Your task to perform on an android device: Go to Yahoo.com Image 0: 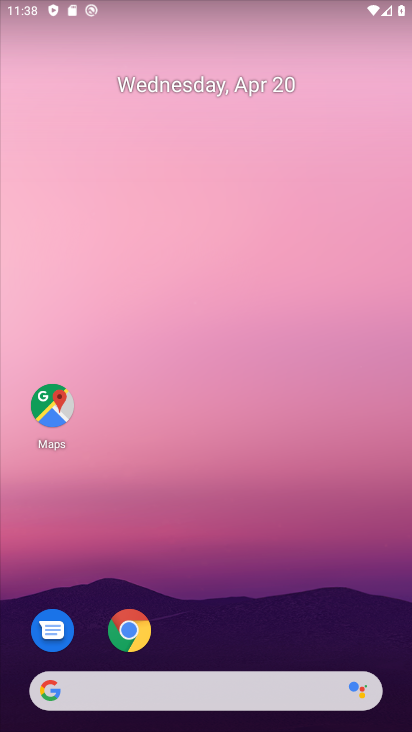
Step 0: click (138, 635)
Your task to perform on an android device: Go to Yahoo.com Image 1: 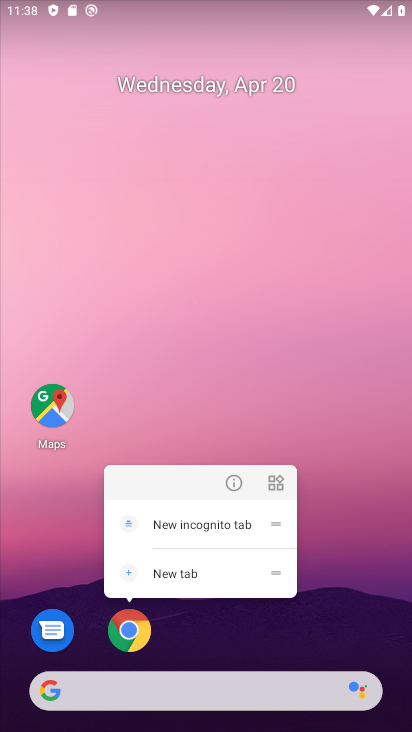
Step 1: click (136, 633)
Your task to perform on an android device: Go to Yahoo.com Image 2: 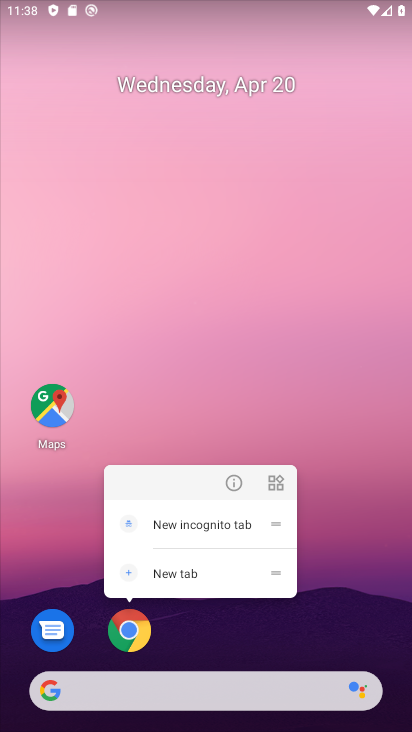
Step 2: click (136, 633)
Your task to perform on an android device: Go to Yahoo.com Image 3: 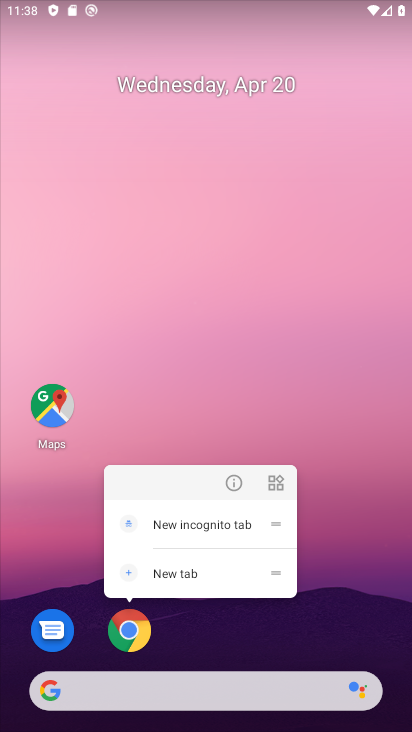
Step 3: click (135, 641)
Your task to perform on an android device: Go to Yahoo.com Image 4: 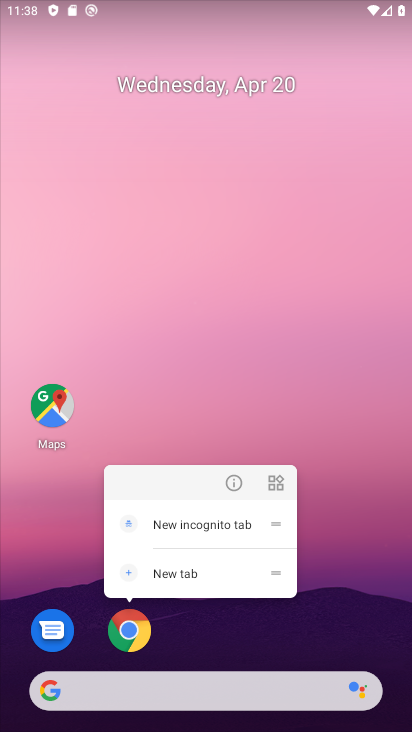
Step 4: click (131, 651)
Your task to perform on an android device: Go to Yahoo.com Image 5: 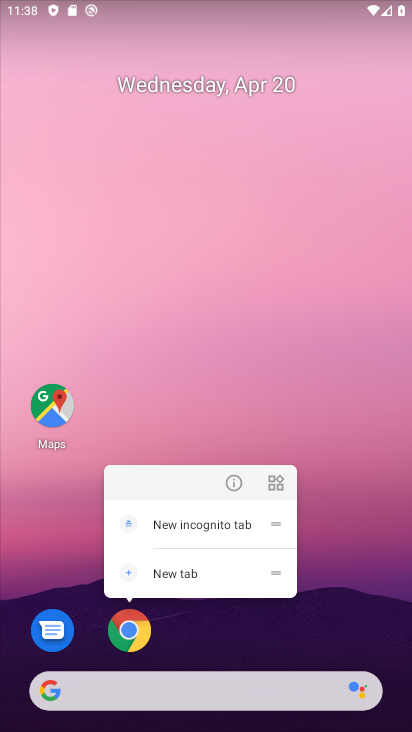
Step 5: click (131, 641)
Your task to perform on an android device: Go to Yahoo.com Image 6: 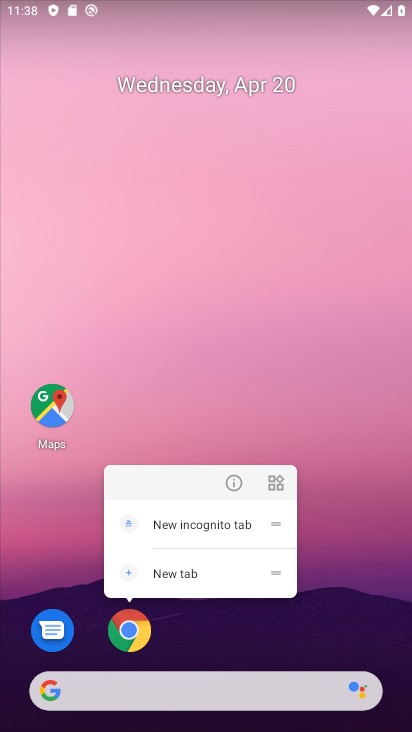
Step 6: click (130, 636)
Your task to perform on an android device: Go to Yahoo.com Image 7: 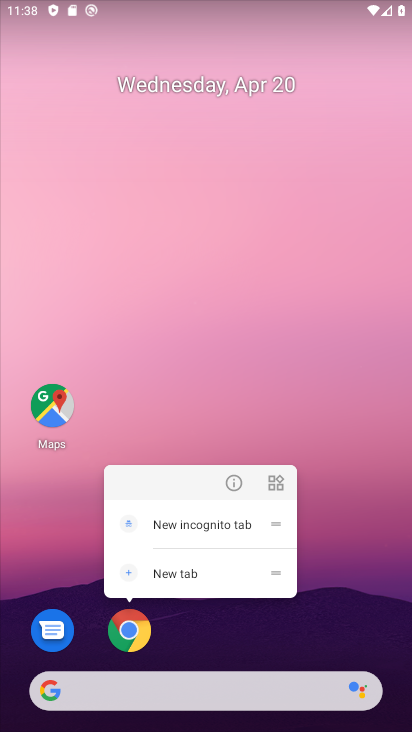
Step 7: click (123, 624)
Your task to perform on an android device: Go to Yahoo.com Image 8: 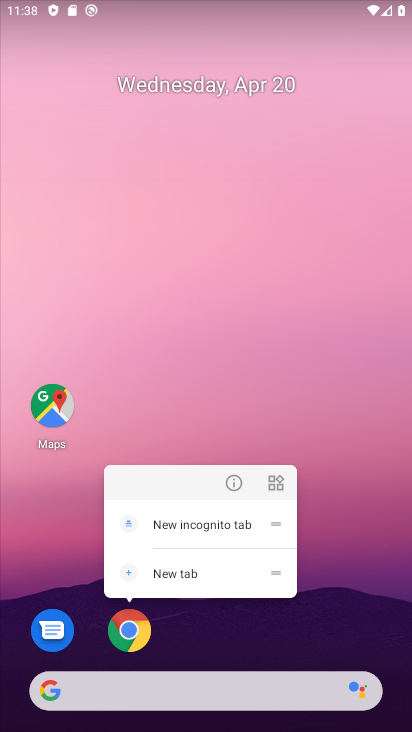
Step 8: click (122, 626)
Your task to perform on an android device: Go to Yahoo.com Image 9: 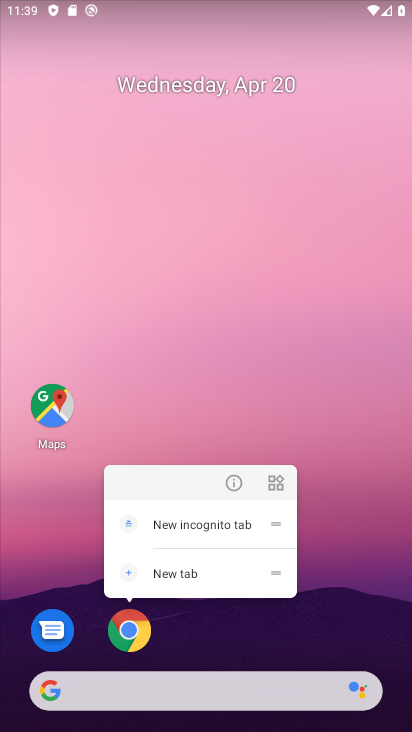
Step 9: click (122, 627)
Your task to perform on an android device: Go to Yahoo.com Image 10: 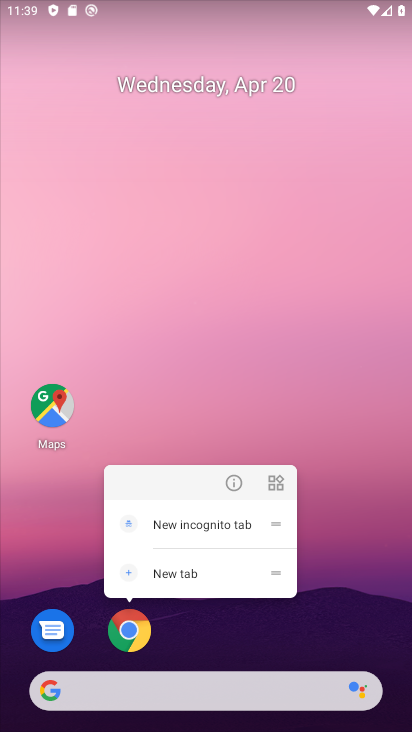
Step 10: click (122, 642)
Your task to perform on an android device: Go to Yahoo.com Image 11: 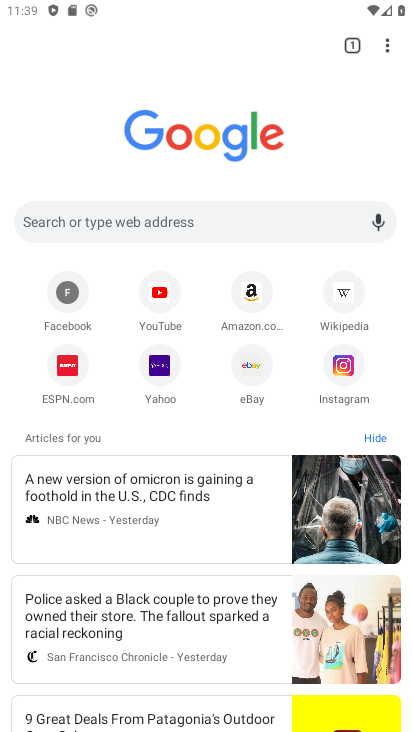
Step 11: click (161, 367)
Your task to perform on an android device: Go to Yahoo.com Image 12: 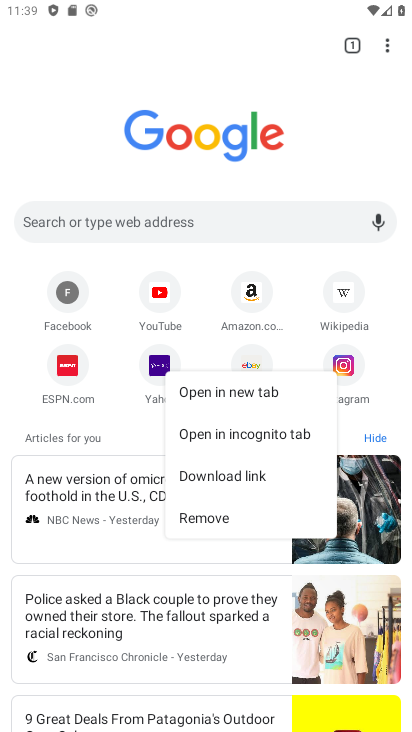
Step 12: click (161, 374)
Your task to perform on an android device: Go to Yahoo.com Image 13: 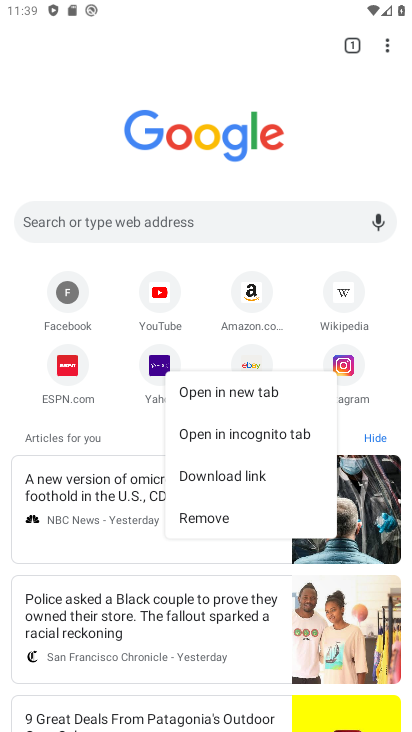
Step 13: click (155, 360)
Your task to perform on an android device: Go to Yahoo.com Image 14: 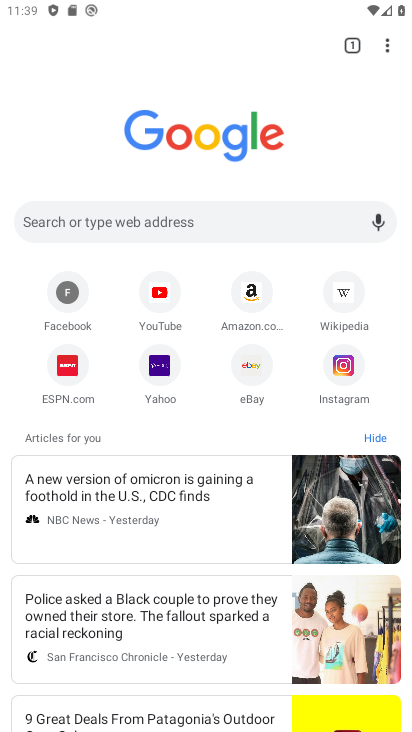
Step 14: click (154, 371)
Your task to perform on an android device: Go to Yahoo.com Image 15: 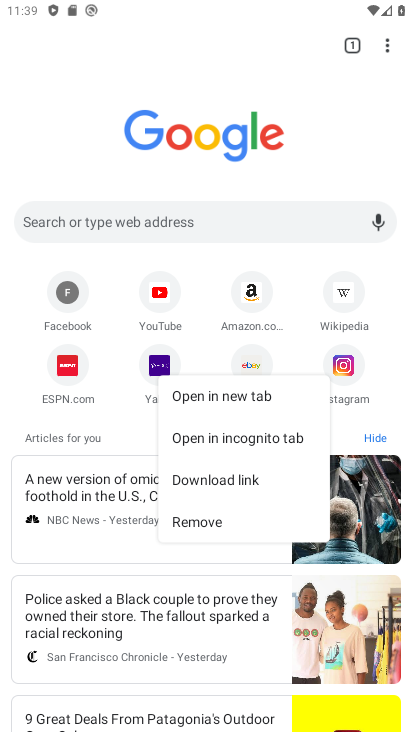
Step 15: click (158, 369)
Your task to perform on an android device: Go to Yahoo.com Image 16: 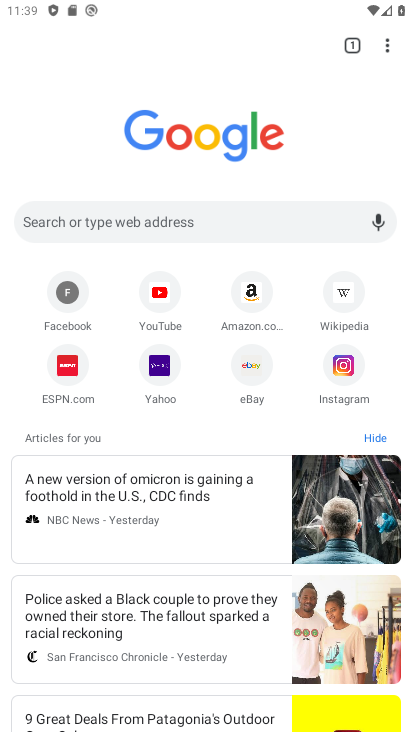
Step 16: click (159, 387)
Your task to perform on an android device: Go to Yahoo.com Image 17: 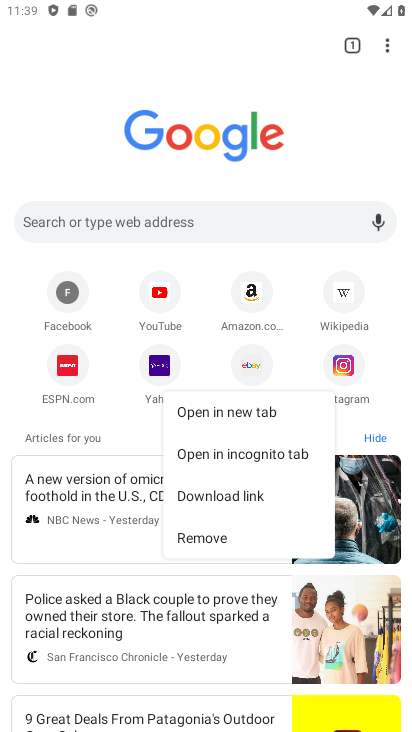
Step 17: click (154, 371)
Your task to perform on an android device: Go to Yahoo.com Image 18: 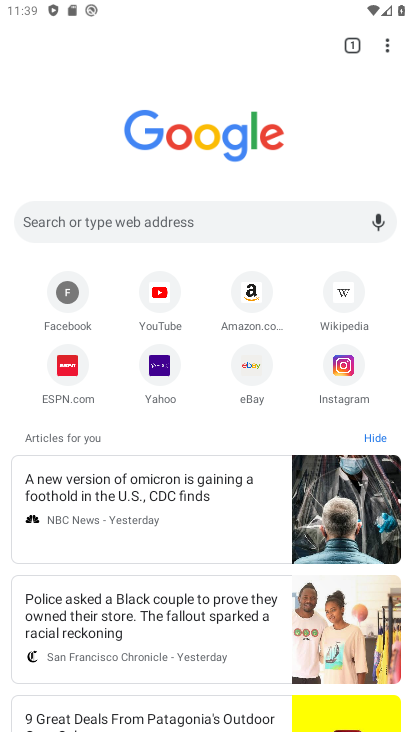
Step 18: click (182, 380)
Your task to perform on an android device: Go to Yahoo.com Image 19: 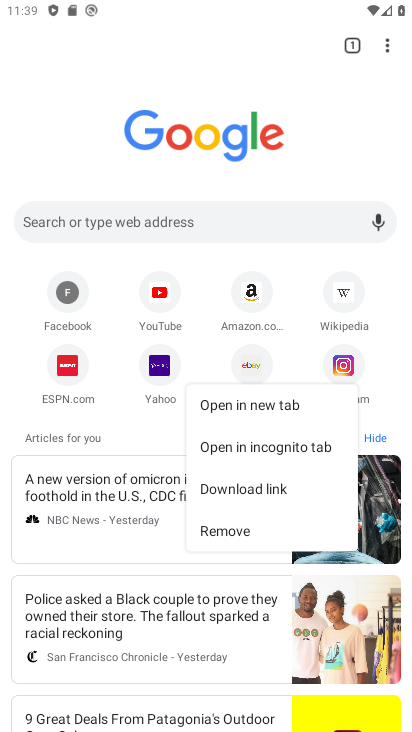
Step 19: click (164, 367)
Your task to perform on an android device: Go to Yahoo.com Image 20: 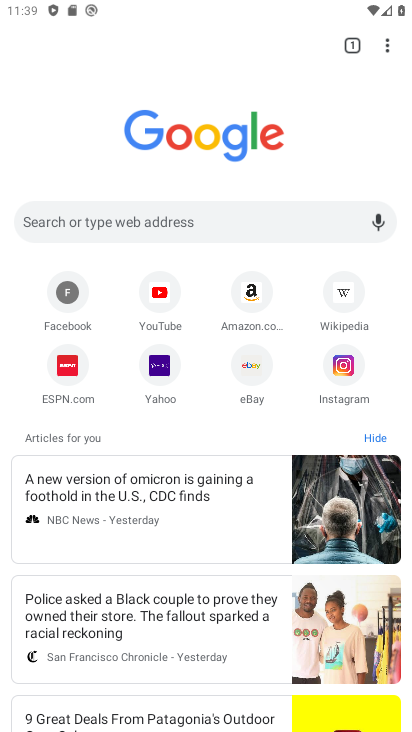
Step 20: click (158, 375)
Your task to perform on an android device: Go to Yahoo.com Image 21: 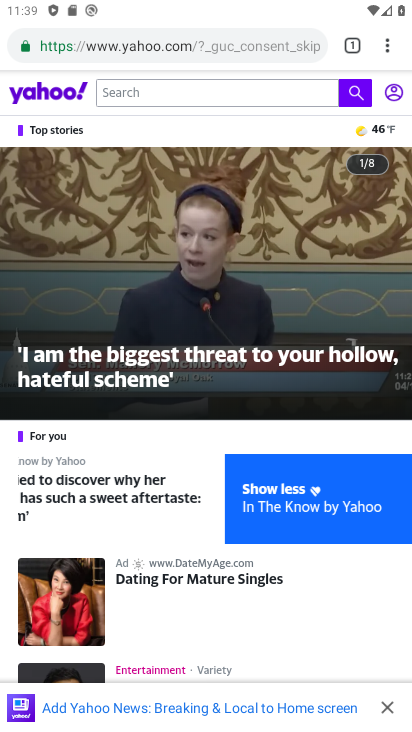
Step 21: task complete